Your task to perform on an android device: Go to sound settings Image 0: 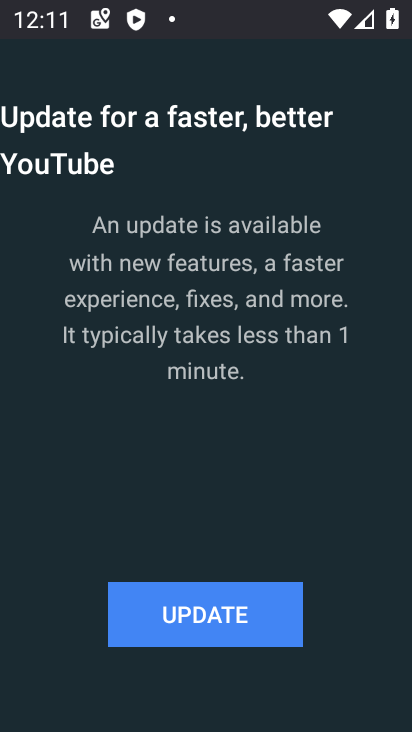
Step 0: press home button
Your task to perform on an android device: Go to sound settings Image 1: 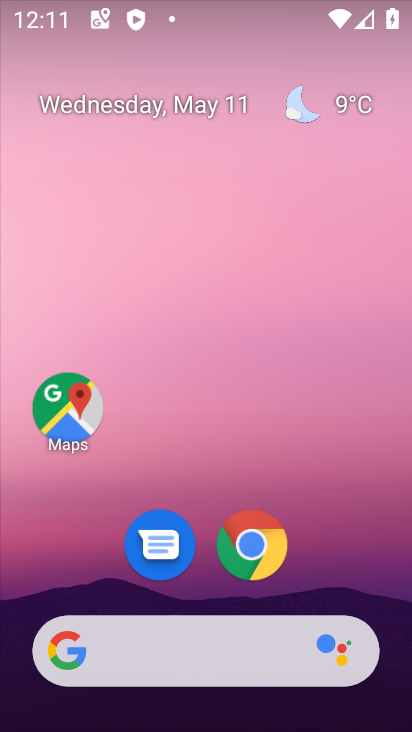
Step 1: drag from (329, 562) to (288, 8)
Your task to perform on an android device: Go to sound settings Image 2: 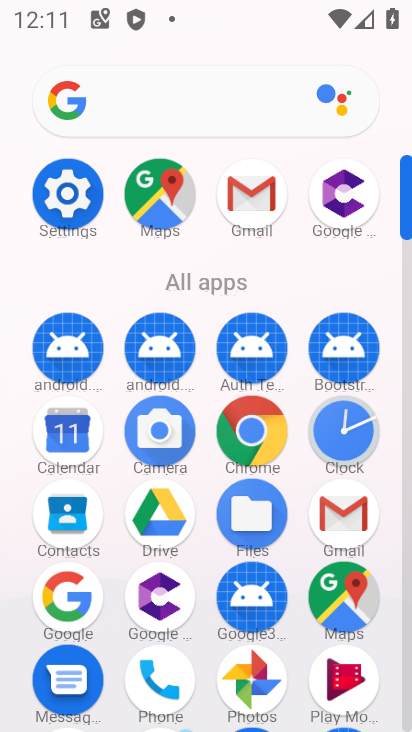
Step 2: click (82, 201)
Your task to perform on an android device: Go to sound settings Image 3: 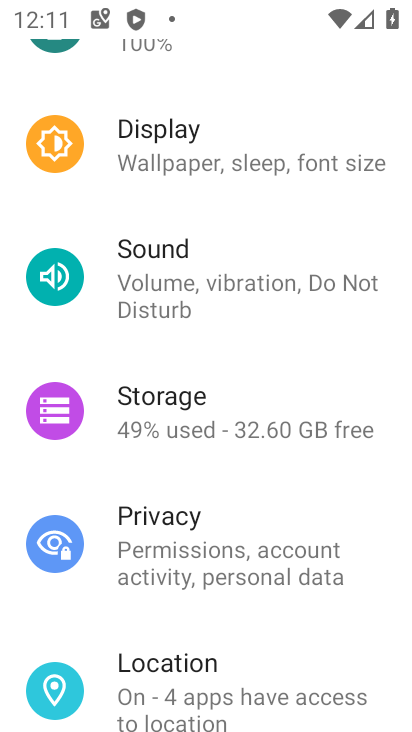
Step 3: click (173, 310)
Your task to perform on an android device: Go to sound settings Image 4: 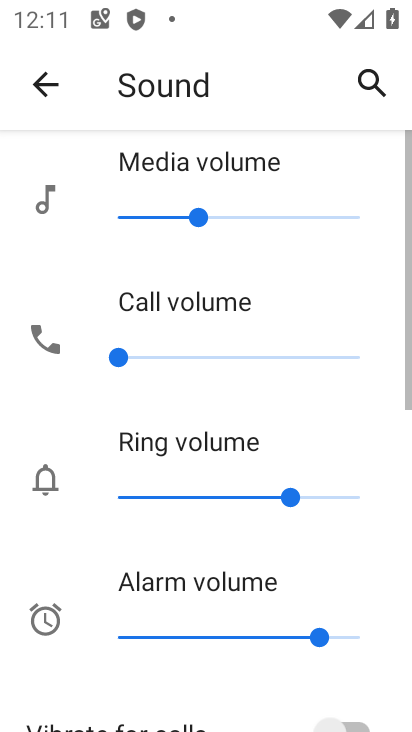
Step 4: task complete